Your task to perform on an android device: turn on data saver in the chrome app Image 0: 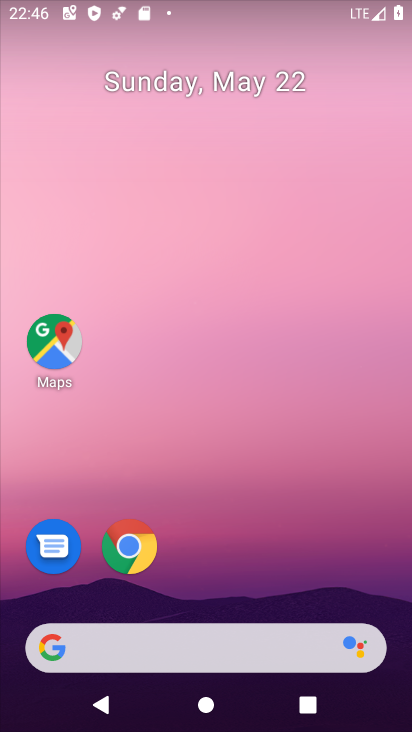
Step 0: drag from (187, 613) to (231, 99)
Your task to perform on an android device: turn on data saver in the chrome app Image 1: 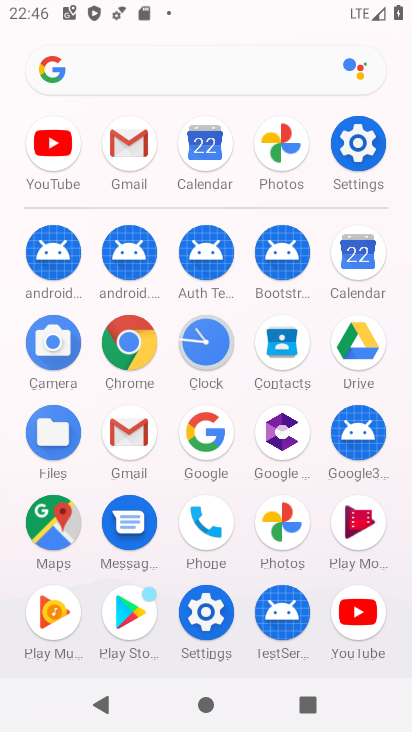
Step 1: click (116, 345)
Your task to perform on an android device: turn on data saver in the chrome app Image 2: 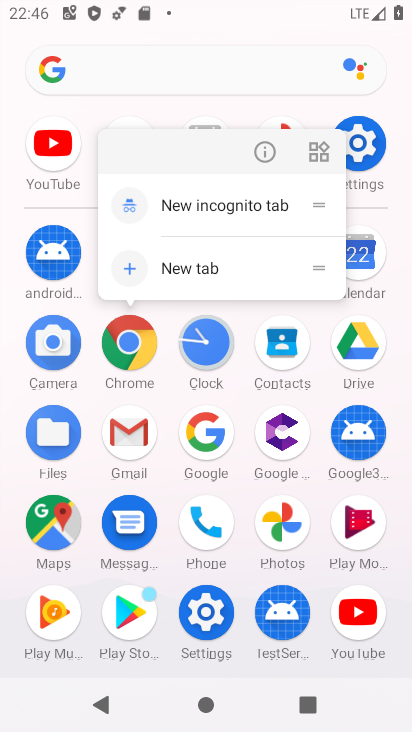
Step 2: click (259, 163)
Your task to perform on an android device: turn on data saver in the chrome app Image 3: 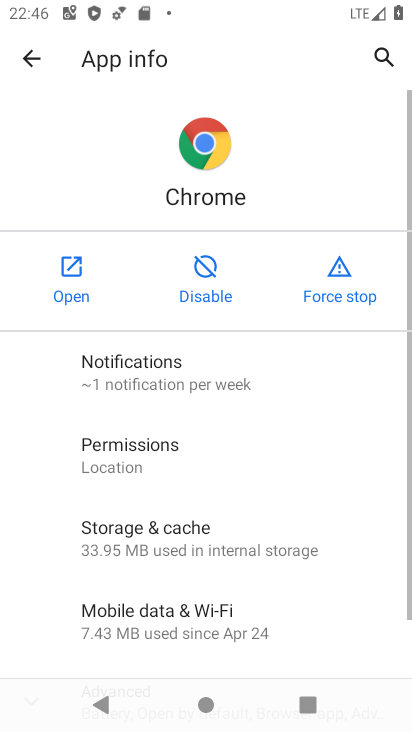
Step 3: click (68, 281)
Your task to perform on an android device: turn on data saver in the chrome app Image 4: 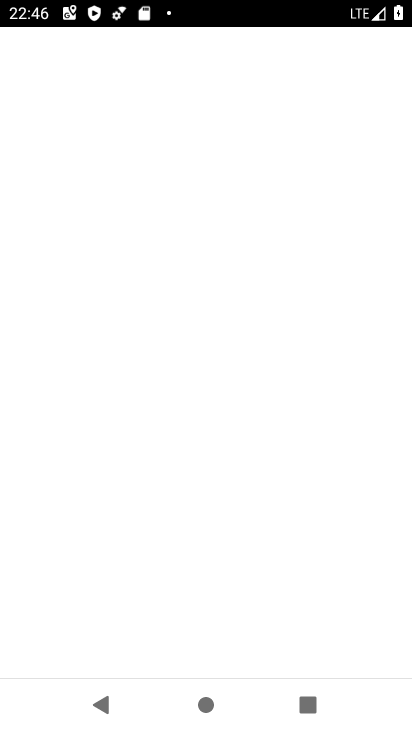
Step 4: drag from (257, 564) to (312, 313)
Your task to perform on an android device: turn on data saver in the chrome app Image 5: 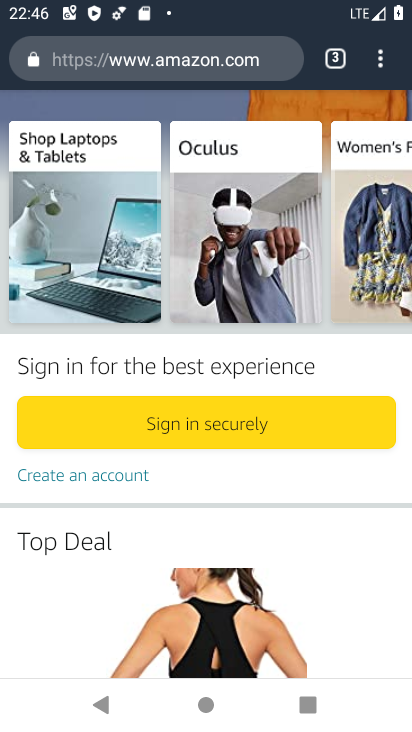
Step 5: drag from (224, 665) to (341, 198)
Your task to perform on an android device: turn on data saver in the chrome app Image 6: 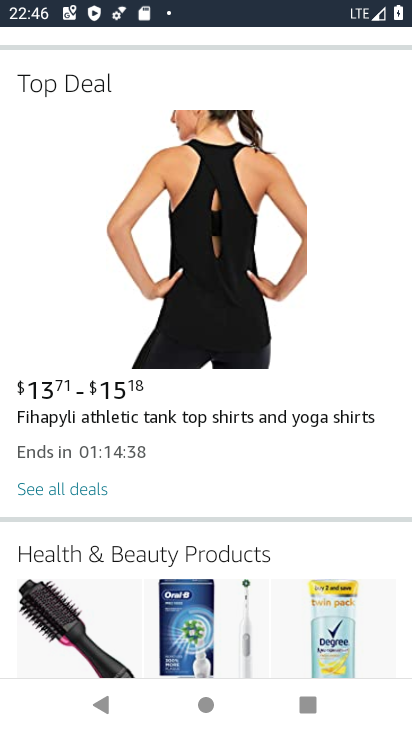
Step 6: drag from (240, 563) to (318, 116)
Your task to perform on an android device: turn on data saver in the chrome app Image 7: 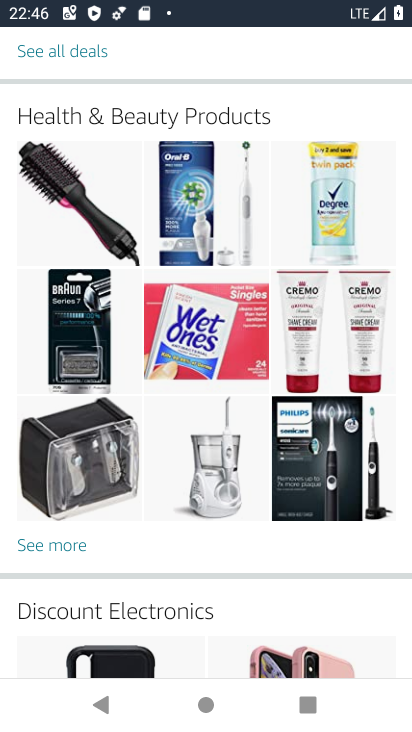
Step 7: drag from (270, 546) to (310, 63)
Your task to perform on an android device: turn on data saver in the chrome app Image 8: 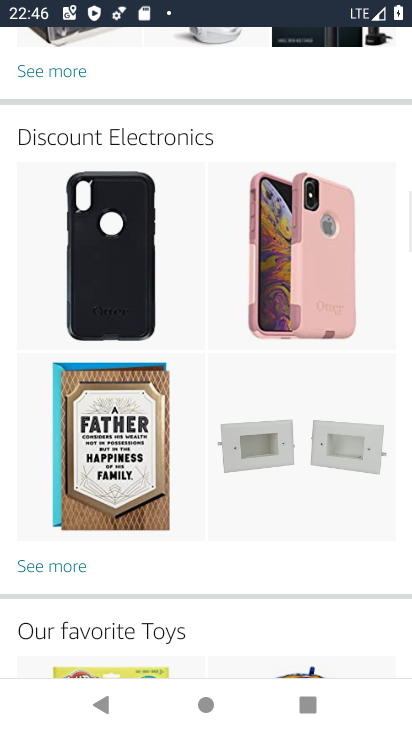
Step 8: drag from (258, 276) to (345, 716)
Your task to perform on an android device: turn on data saver in the chrome app Image 9: 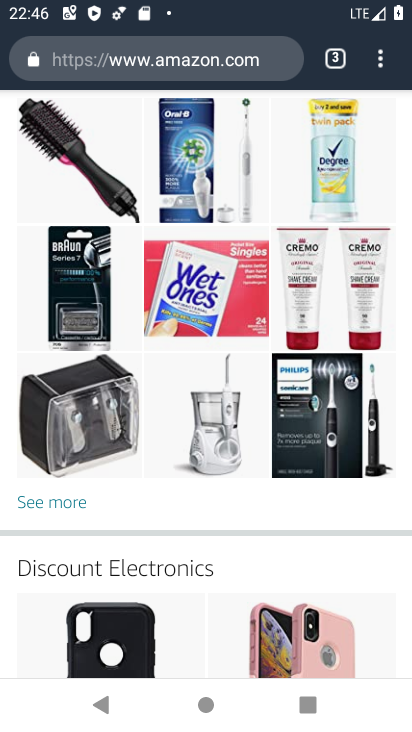
Step 9: drag from (292, 200) to (375, 729)
Your task to perform on an android device: turn on data saver in the chrome app Image 10: 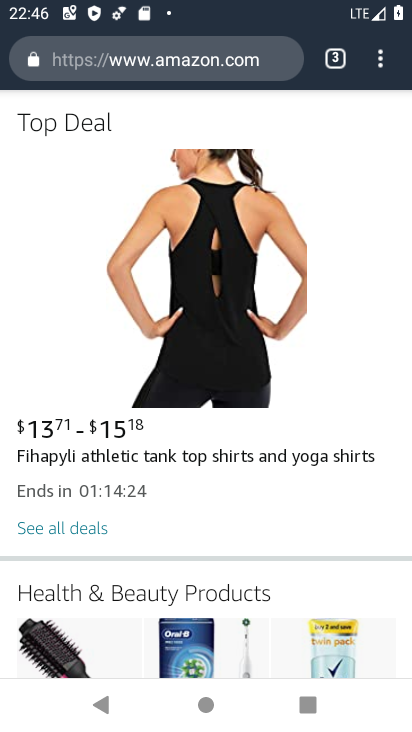
Step 10: drag from (230, 582) to (277, 150)
Your task to perform on an android device: turn on data saver in the chrome app Image 11: 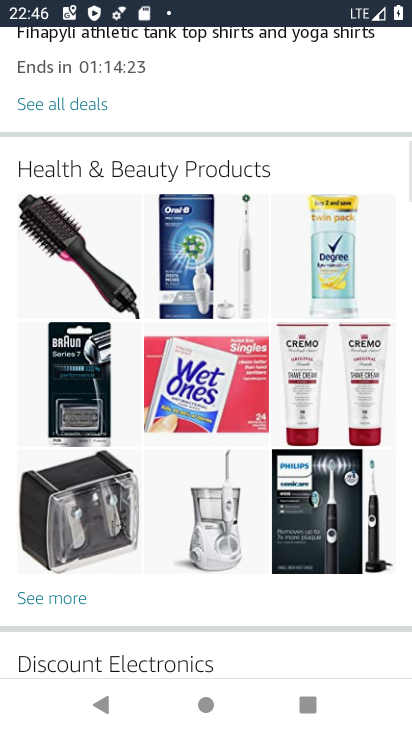
Step 11: drag from (285, 288) to (406, 724)
Your task to perform on an android device: turn on data saver in the chrome app Image 12: 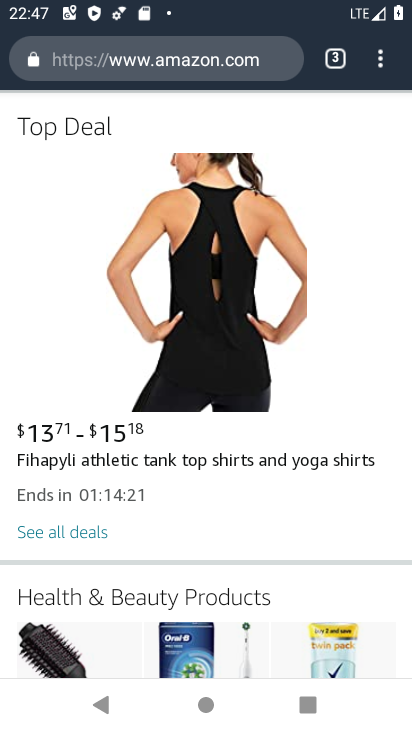
Step 12: click (380, 59)
Your task to perform on an android device: turn on data saver in the chrome app Image 13: 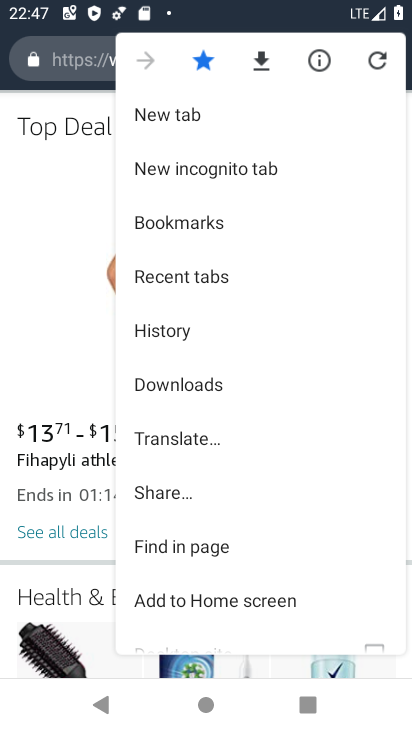
Step 13: drag from (246, 407) to (310, 133)
Your task to perform on an android device: turn on data saver in the chrome app Image 14: 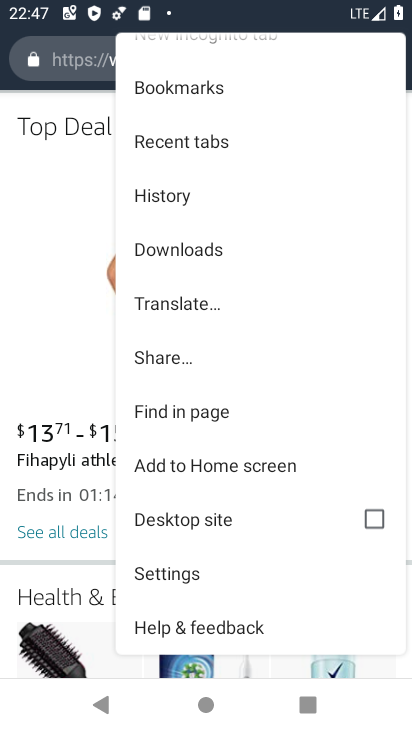
Step 14: drag from (211, 577) to (260, 224)
Your task to perform on an android device: turn on data saver in the chrome app Image 15: 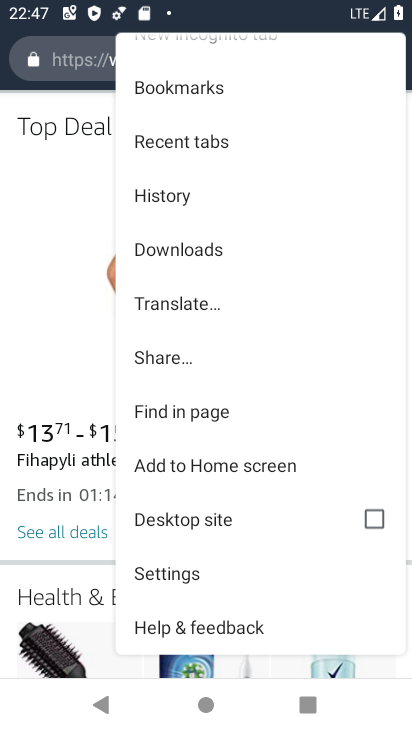
Step 15: drag from (237, 88) to (290, 642)
Your task to perform on an android device: turn on data saver in the chrome app Image 16: 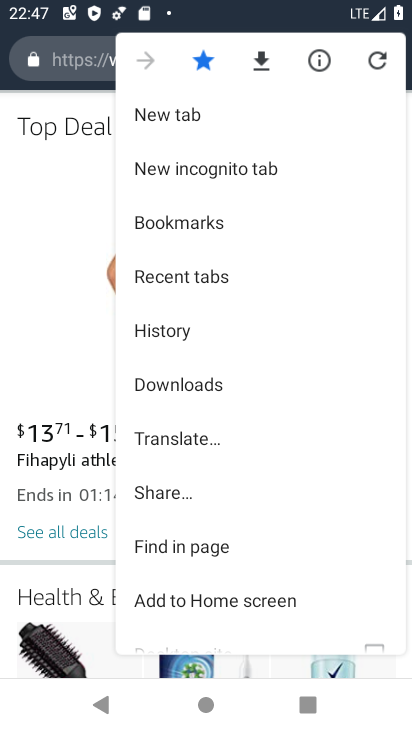
Step 16: drag from (217, 552) to (275, 158)
Your task to perform on an android device: turn on data saver in the chrome app Image 17: 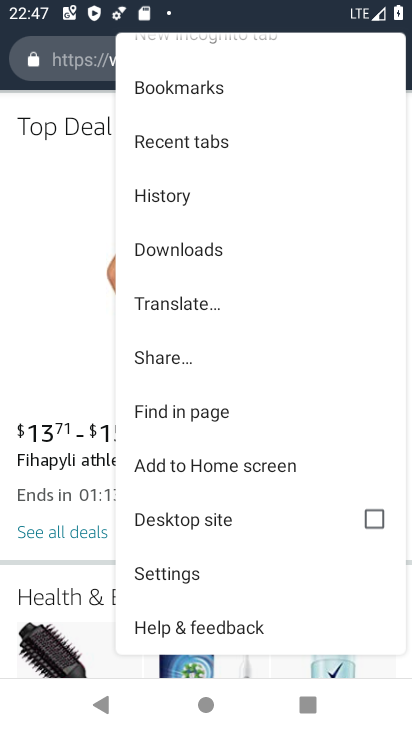
Step 17: click (195, 580)
Your task to perform on an android device: turn on data saver in the chrome app Image 18: 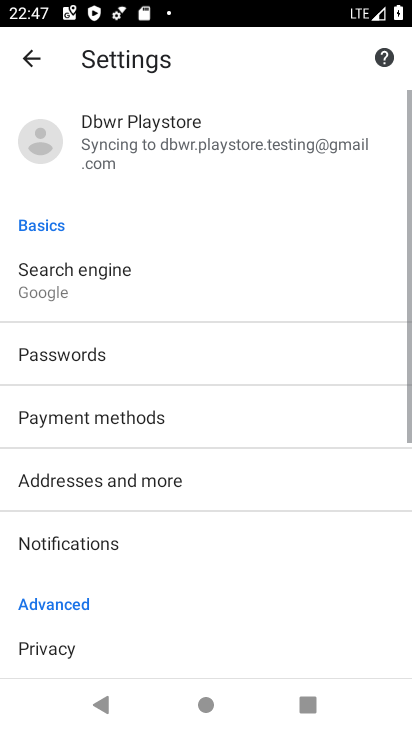
Step 18: drag from (233, 556) to (322, 134)
Your task to perform on an android device: turn on data saver in the chrome app Image 19: 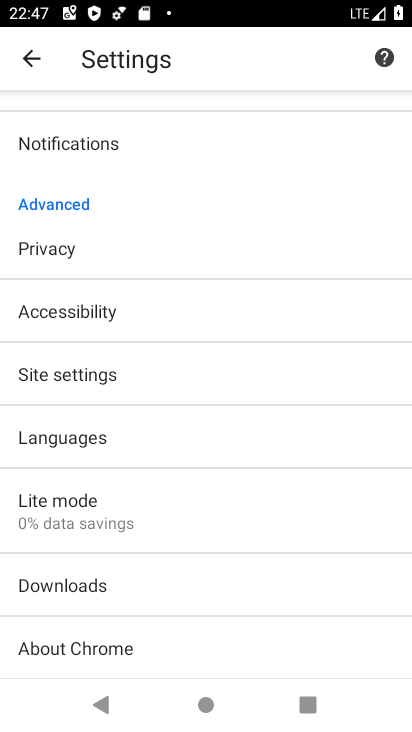
Step 19: click (151, 520)
Your task to perform on an android device: turn on data saver in the chrome app Image 20: 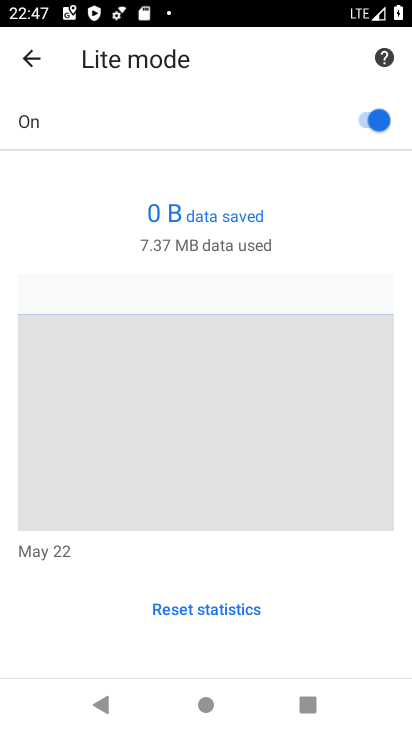
Step 20: task complete